Your task to perform on an android device: Open notification settings Image 0: 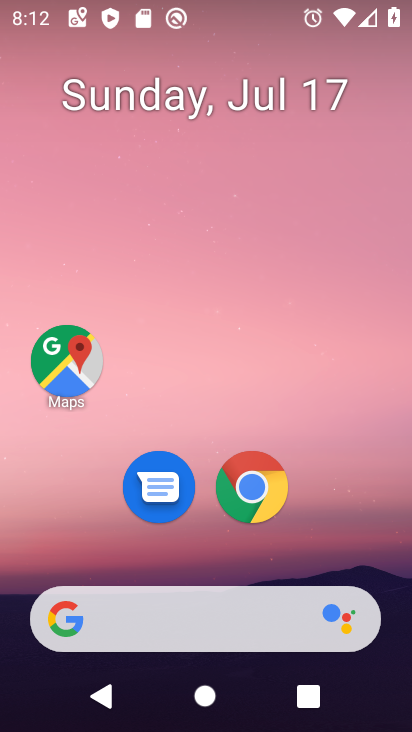
Step 0: drag from (216, 565) to (252, 37)
Your task to perform on an android device: Open notification settings Image 1: 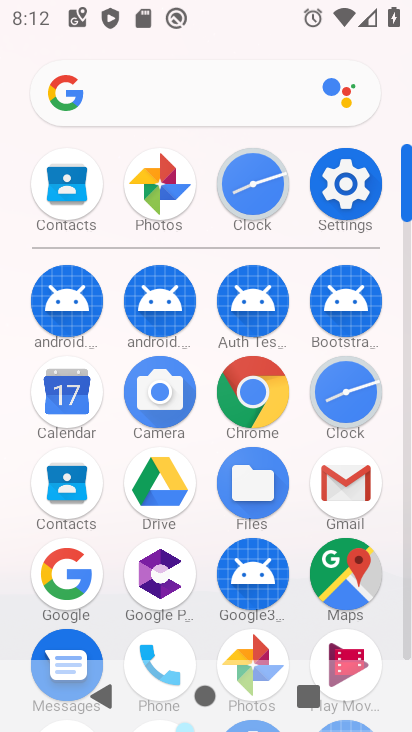
Step 1: click (365, 182)
Your task to perform on an android device: Open notification settings Image 2: 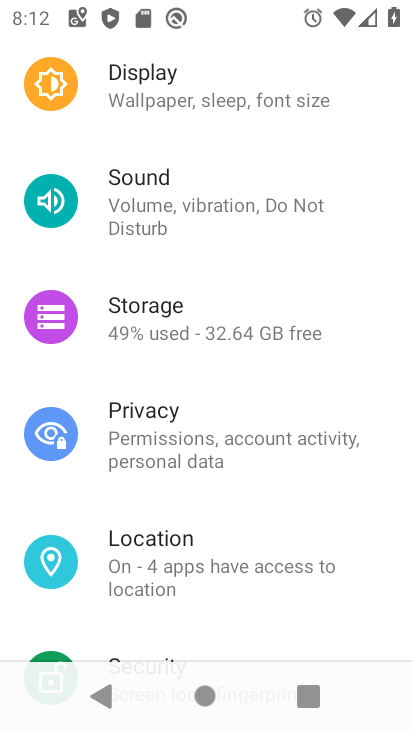
Step 2: drag from (238, 171) to (195, 704)
Your task to perform on an android device: Open notification settings Image 3: 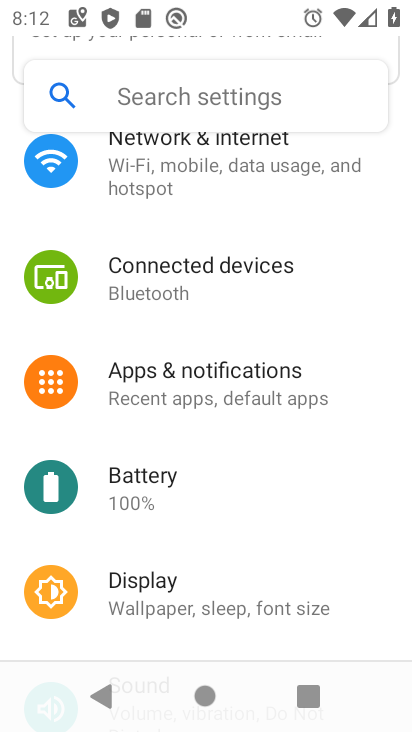
Step 3: click (203, 383)
Your task to perform on an android device: Open notification settings Image 4: 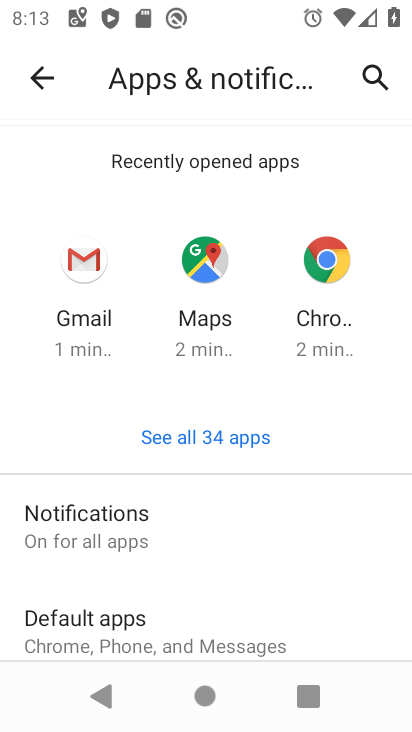
Step 4: click (149, 518)
Your task to perform on an android device: Open notification settings Image 5: 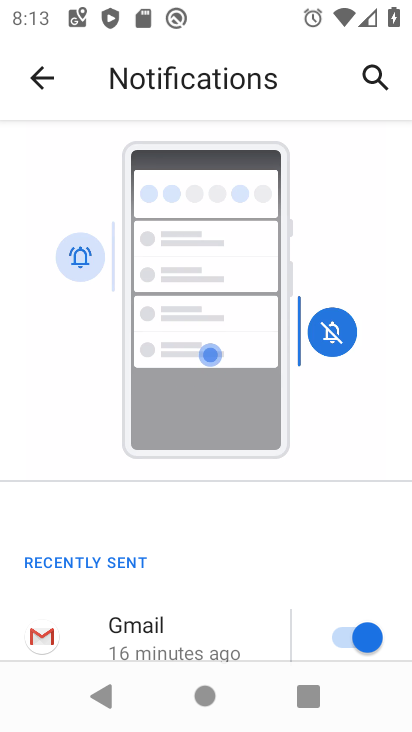
Step 5: task complete